Your task to perform on an android device: What's the weather going to be tomorrow? Image 0: 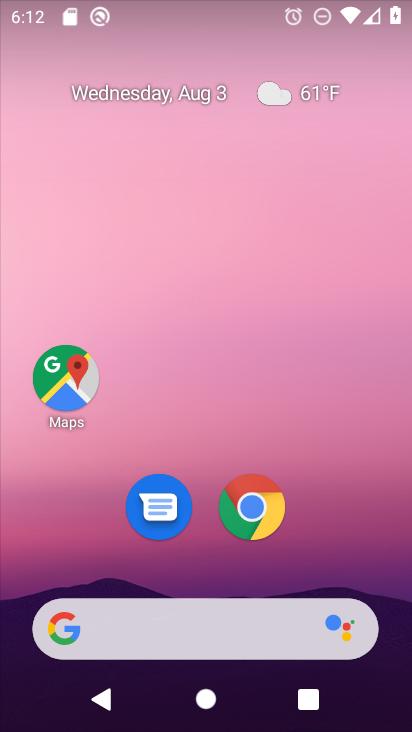
Step 0: drag from (322, 532) to (324, 113)
Your task to perform on an android device: What's the weather going to be tomorrow? Image 1: 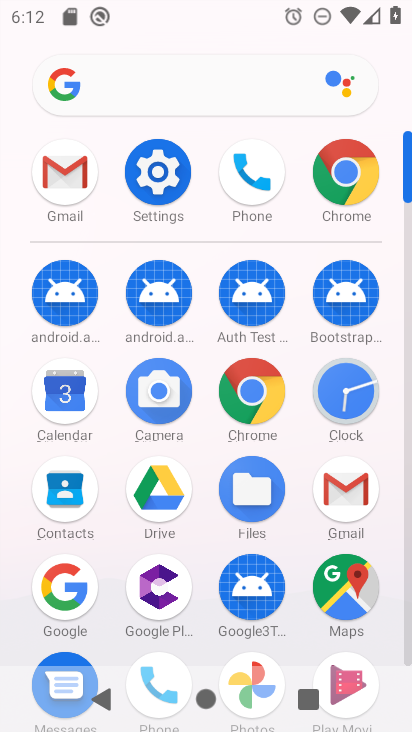
Step 1: press home button
Your task to perform on an android device: What's the weather going to be tomorrow? Image 2: 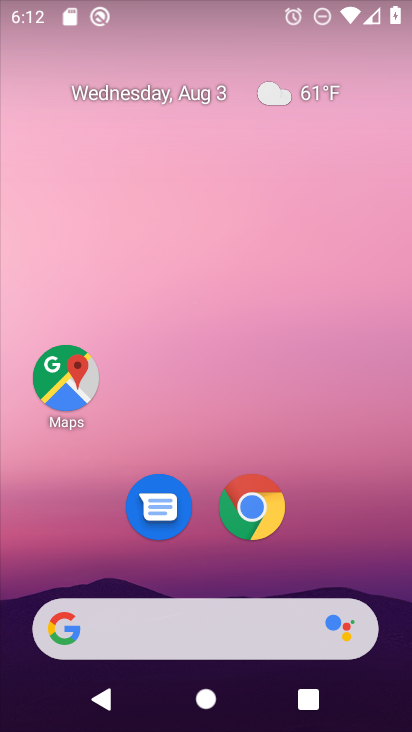
Step 2: click (312, 96)
Your task to perform on an android device: What's the weather going to be tomorrow? Image 3: 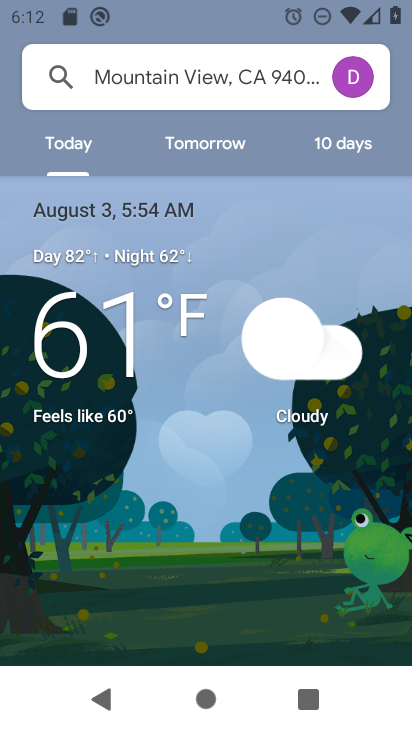
Step 3: click (225, 145)
Your task to perform on an android device: What's the weather going to be tomorrow? Image 4: 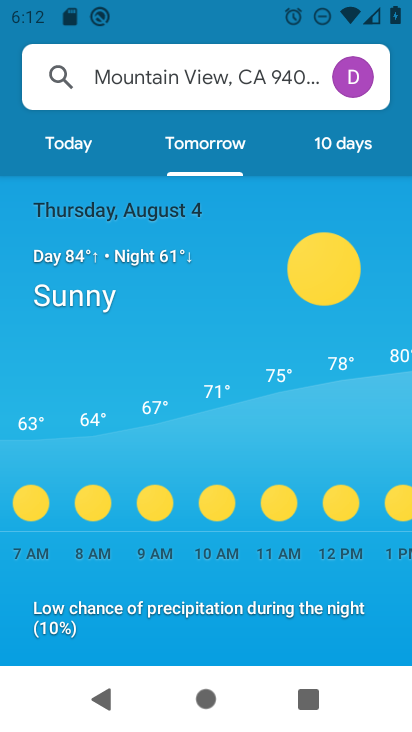
Step 4: task complete